Your task to perform on an android device: remove spam from my inbox in the gmail app Image 0: 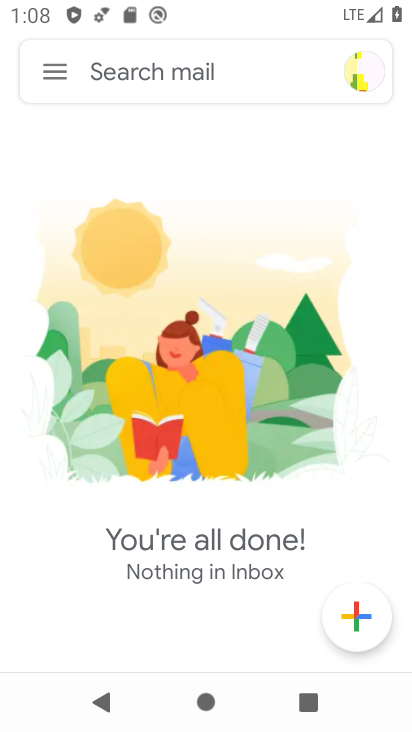
Step 0: press home button
Your task to perform on an android device: remove spam from my inbox in the gmail app Image 1: 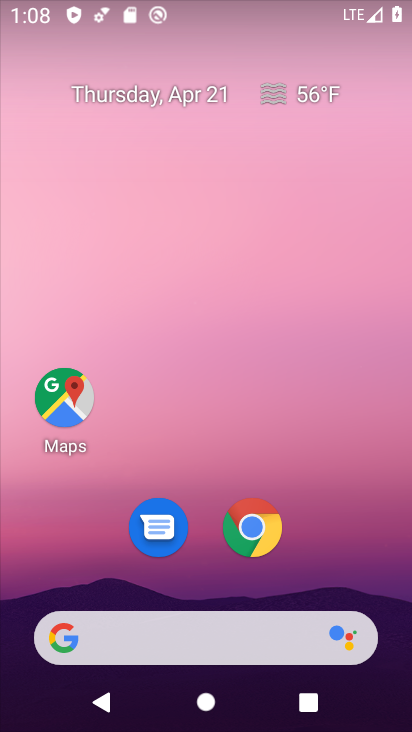
Step 1: drag from (203, 567) to (233, 134)
Your task to perform on an android device: remove spam from my inbox in the gmail app Image 2: 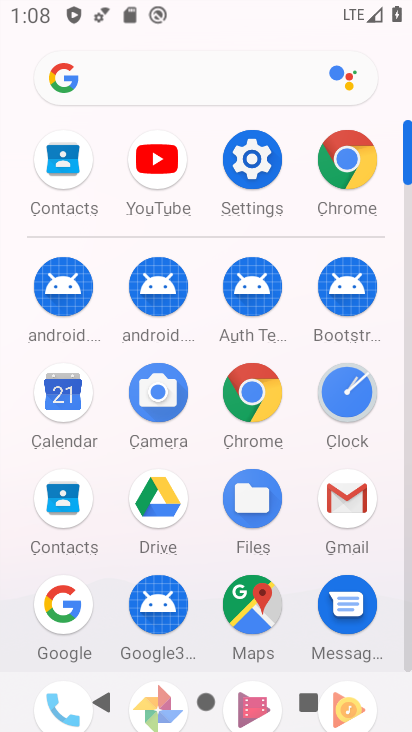
Step 2: click (366, 502)
Your task to perform on an android device: remove spam from my inbox in the gmail app Image 3: 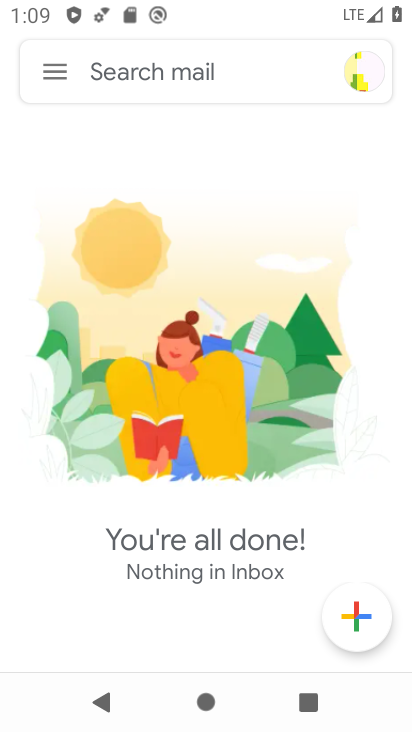
Step 3: click (52, 74)
Your task to perform on an android device: remove spam from my inbox in the gmail app Image 4: 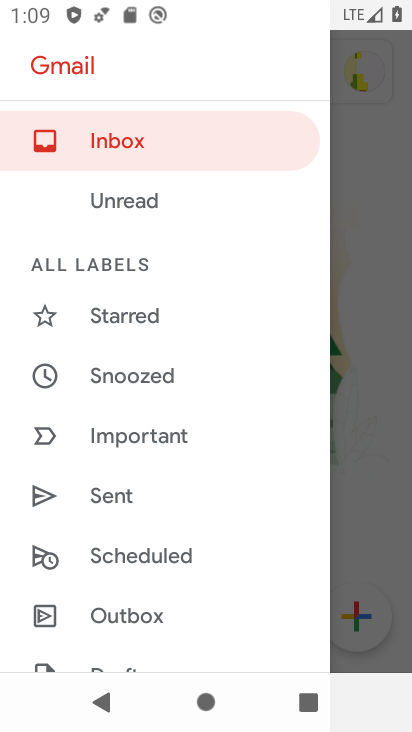
Step 4: drag from (122, 566) to (148, 321)
Your task to perform on an android device: remove spam from my inbox in the gmail app Image 5: 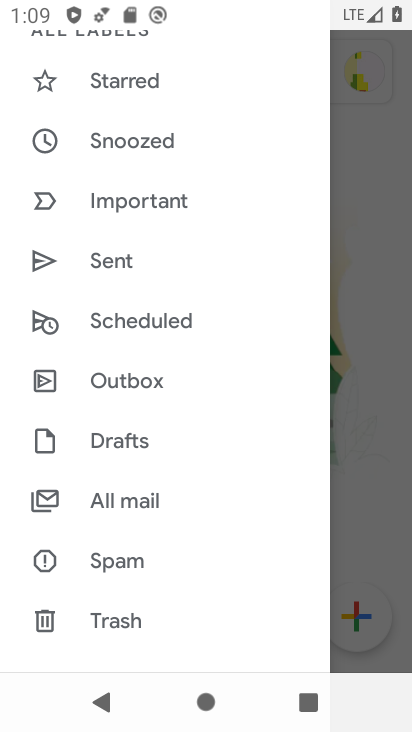
Step 5: click (121, 567)
Your task to perform on an android device: remove spam from my inbox in the gmail app Image 6: 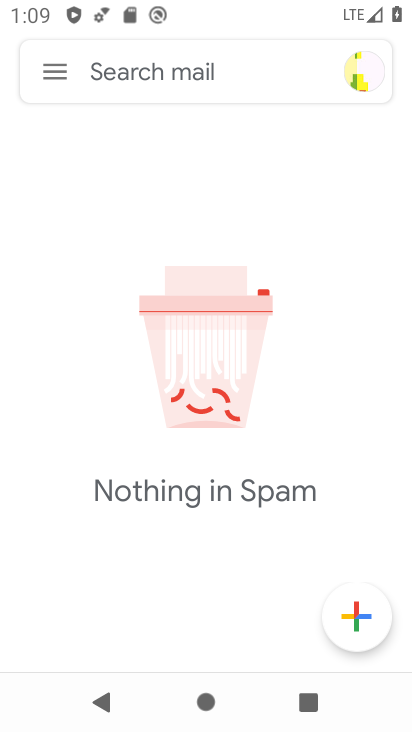
Step 6: task complete